Your task to perform on an android device: manage bookmarks in the chrome app Image 0: 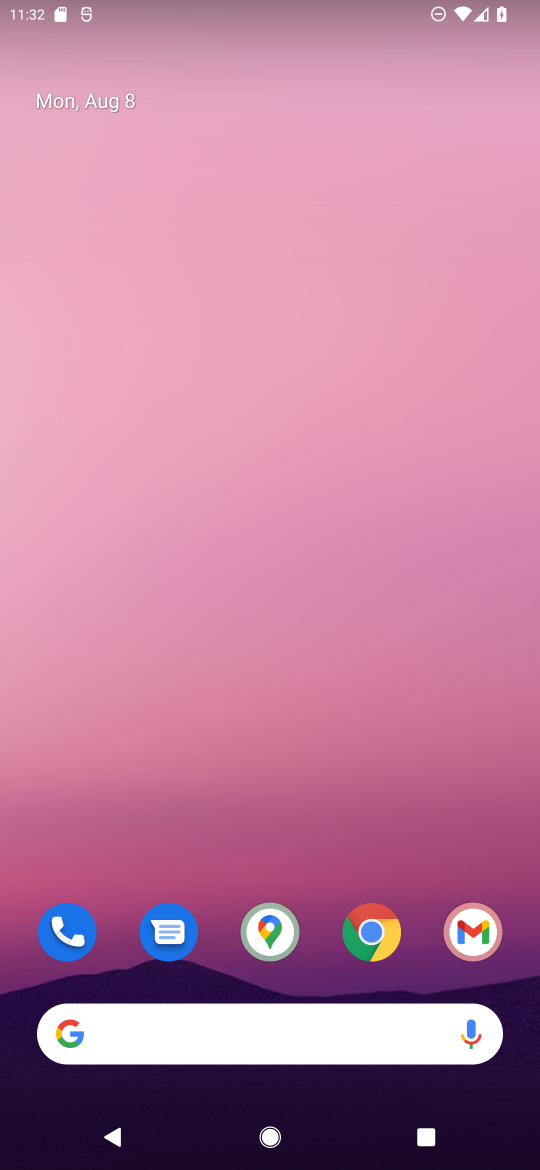
Step 0: click (365, 928)
Your task to perform on an android device: manage bookmarks in the chrome app Image 1: 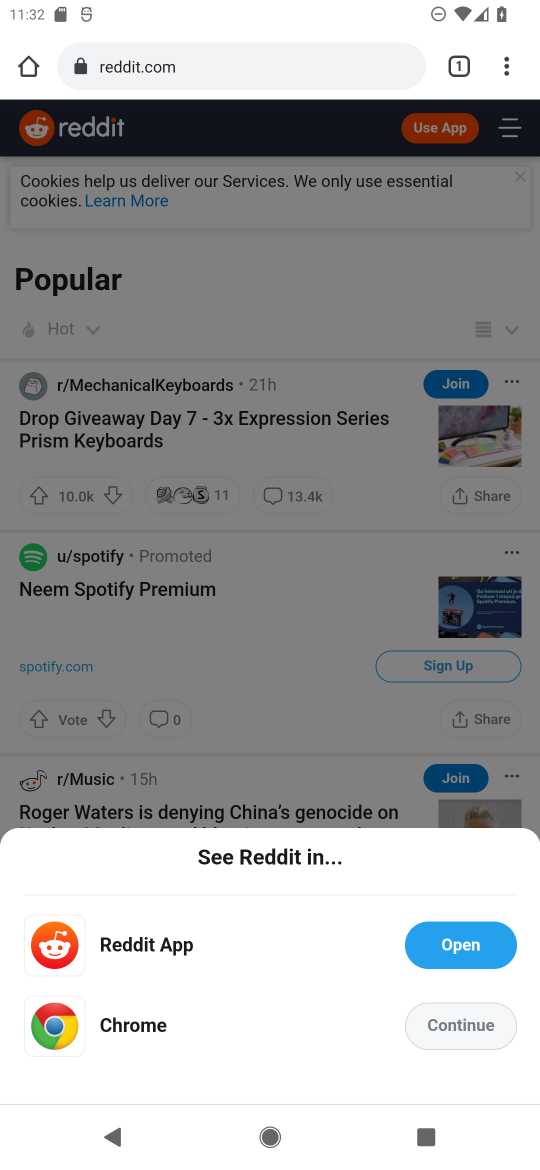
Step 1: click (516, 67)
Your task to perform on an android device: manage bookmarks in the chrome app Image 2: 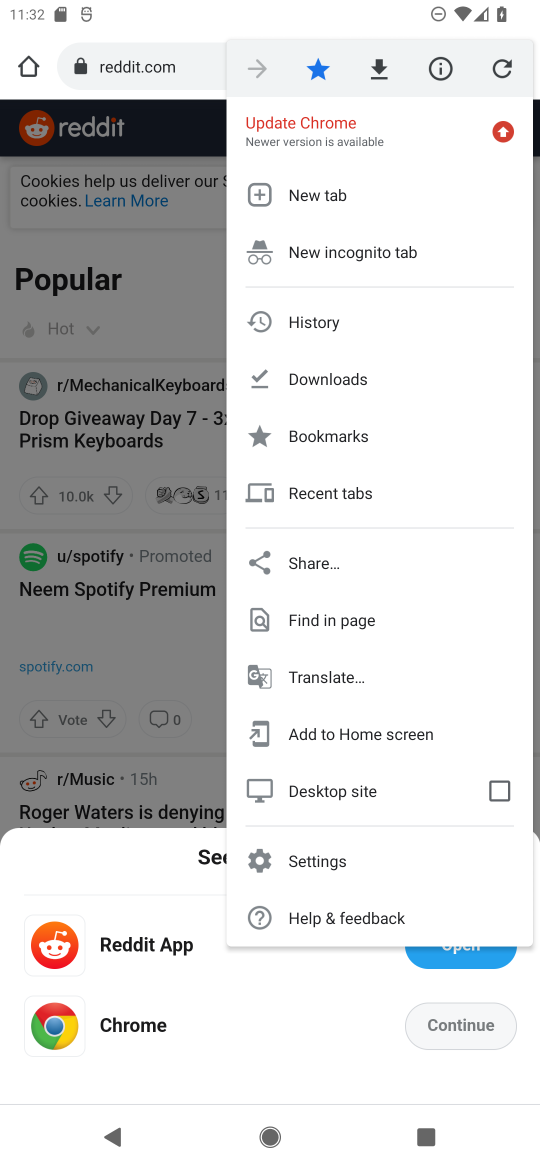
Step 2: click (386, 444)
Your task to perform on an android device: manage bookmarks in the chrome app Image 3: 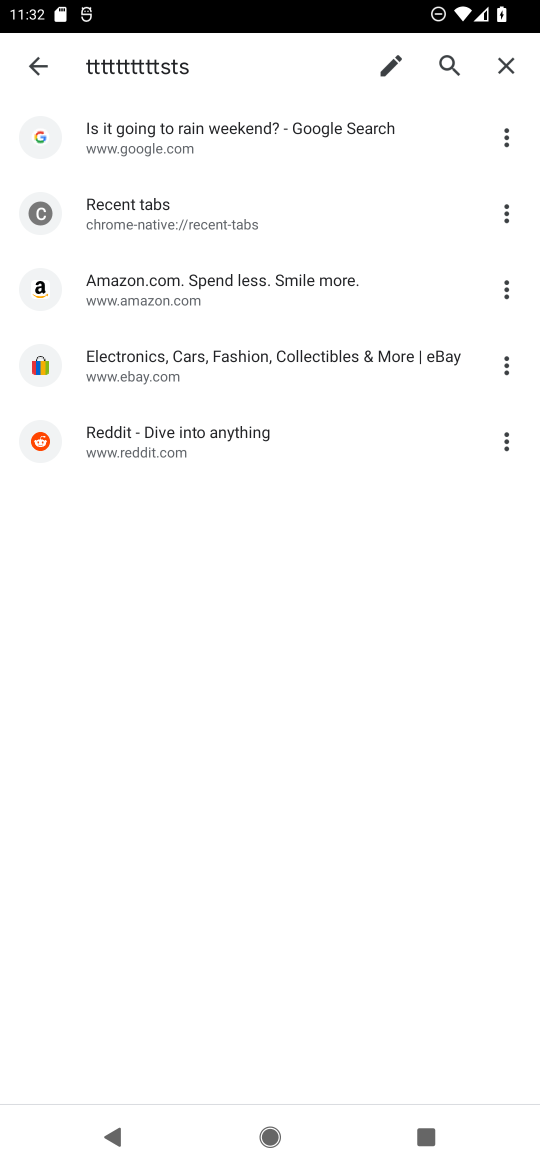
Step 3: click (489, 433)
Your task to perform on an android device: manage bookmarks in the chrome app Image 4: 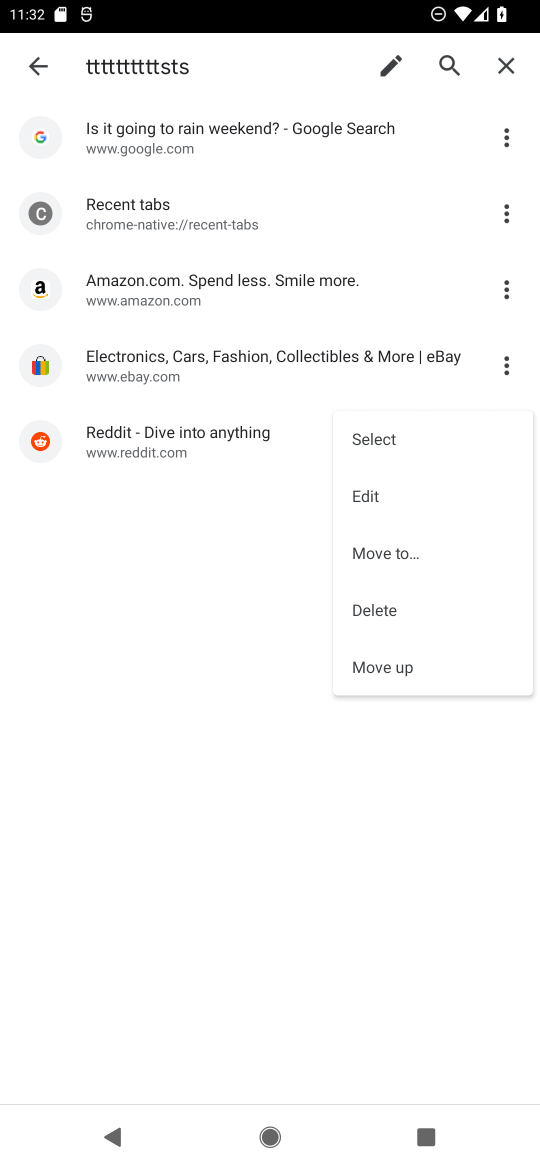
Step 4: click (393, 604)
Your task to perform on an android device: manage bookmarks in the chrome app Image 5: 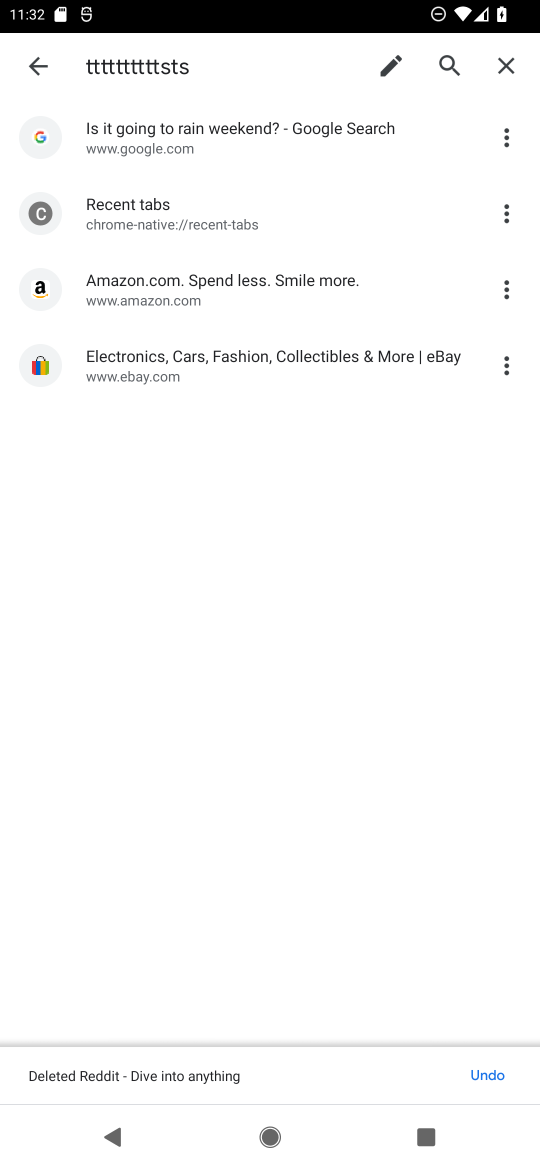
Step 5: task complete